Your task to perform on an android device: Open Yahoo.com Image 0: 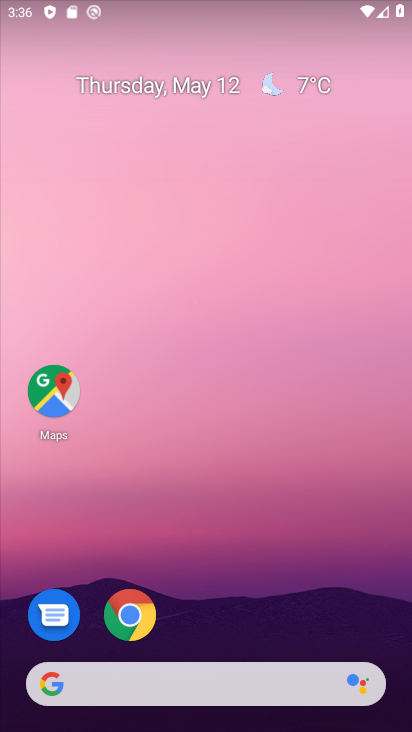
Step 0: click (131, 615)
Your task to perform on an android device: Open Yahoo.com Image 1: 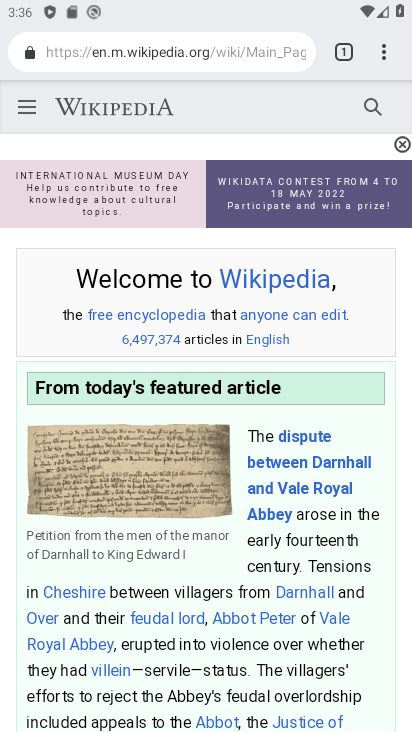
Step 1: click (168, 46)
Your task to perform on an android device: Open Yahoo.com Image 2: 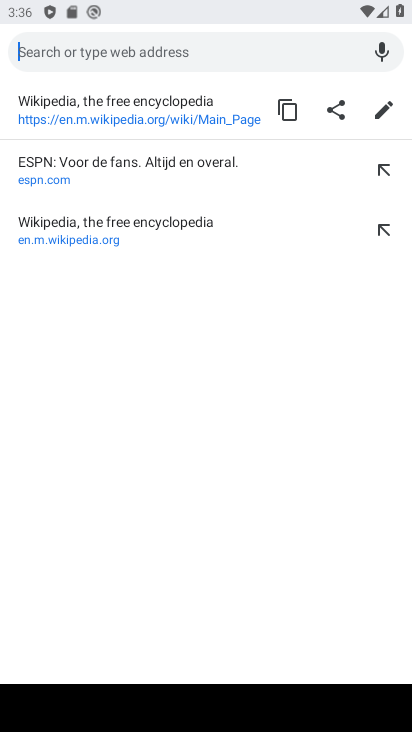
Step 2: type "yahoo.com"
Your task to perform on an android device: Open Yahoo.com Image 3: 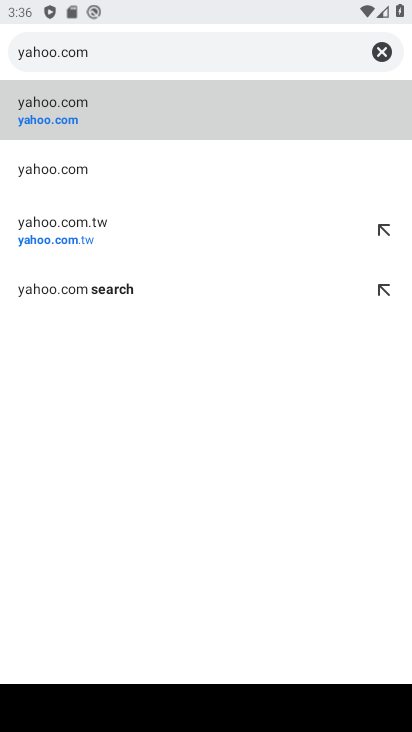
Step 3: click (245, 103)
Your task to perform on an android device: Open Yahoo.com Image 4: 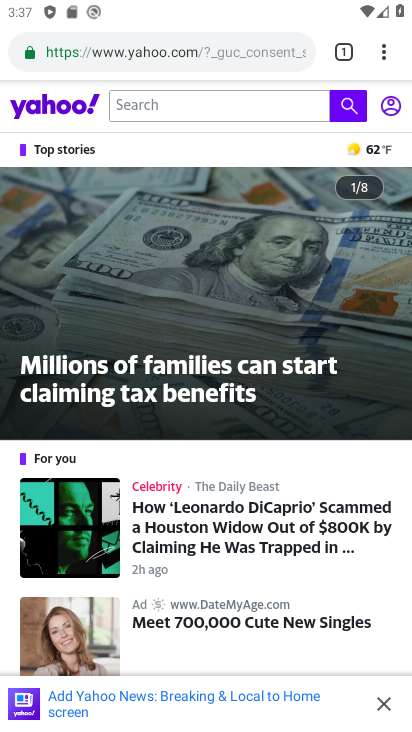
Step 4: task complete